Your task to perform on an android device: change the clock style Image 0: 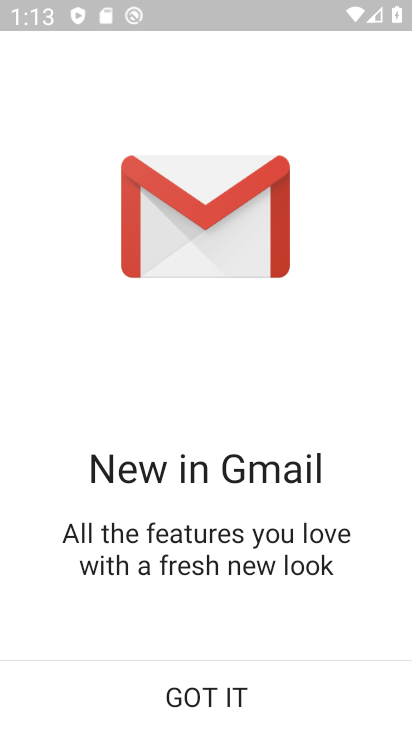
Step 0: press home button
Your task to perform on an android device: change the clock style Image 1: 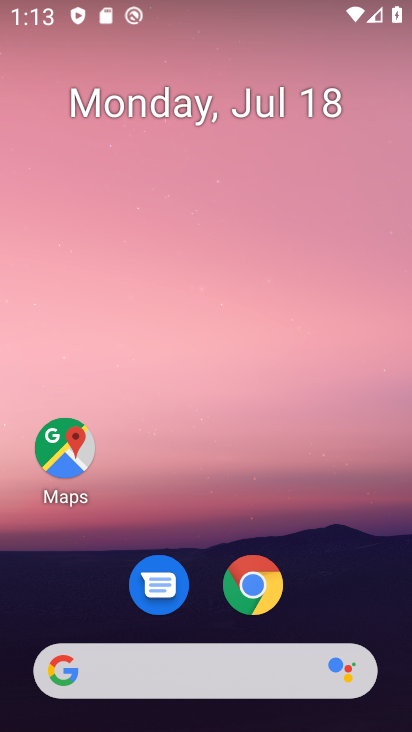
Step 1: drag from (206, 663) to (96, 404)
Your task to perform on an android device: change the clock style Image 2: 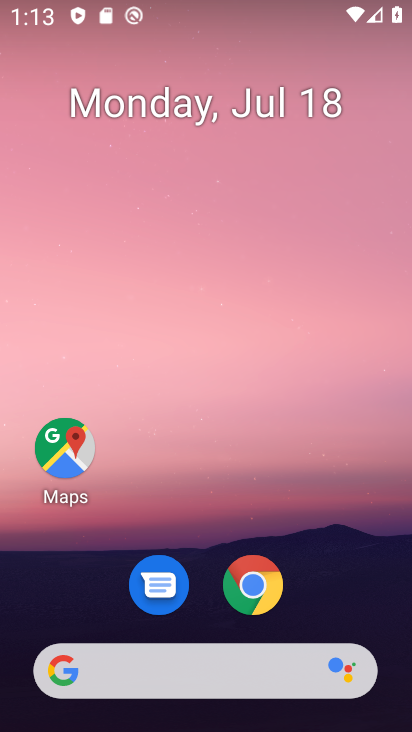
Step 2: drag from (166, 707) to (157, 626)
Your task to perform on an android device: change the clock style Image 3: 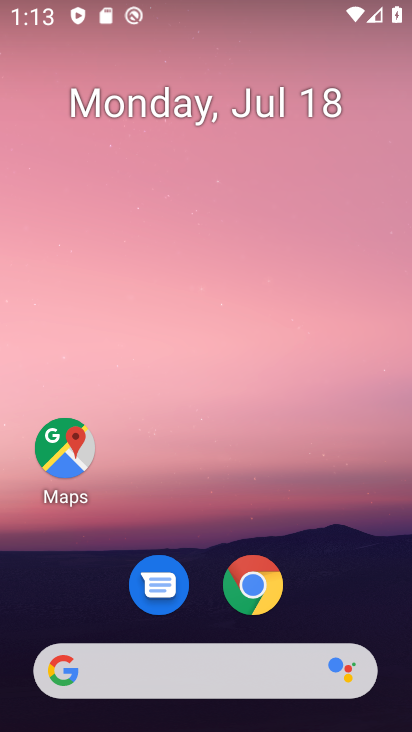
Step 3: drag from (233, 680) to (178, 32)
Your task to perform on an android device: change the clock style Image 4: 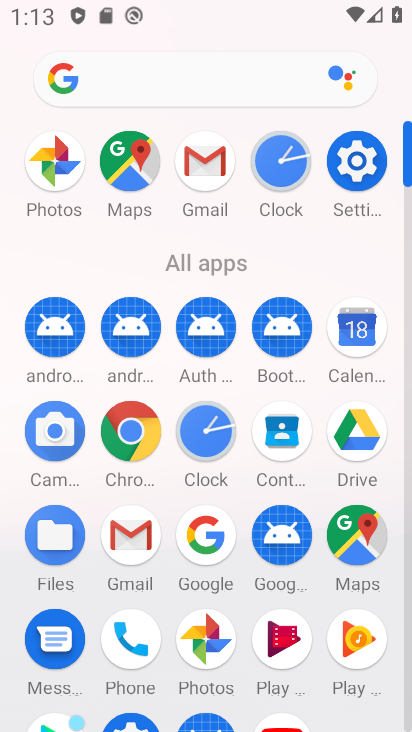
Step 4: click (205, 427)
Your task to perform on an android device: change the clock style Image 5: 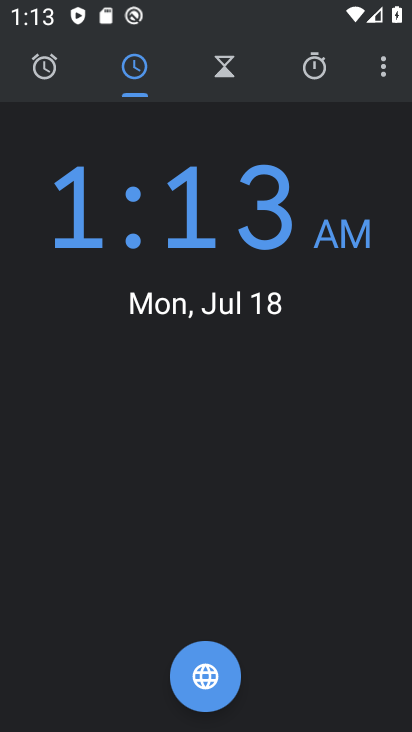
Step 5: click (382, 70)
Your task to perform on an android device: change the clock style Image 6: 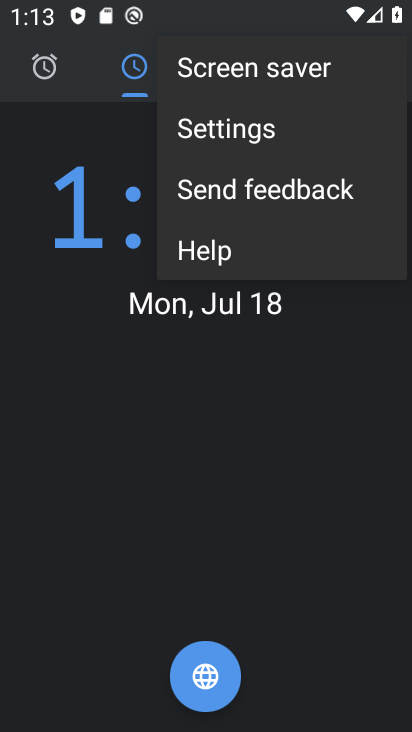
Step 6: click (249, 132)
Your task to perform on an android device: change the clock style Image 7: 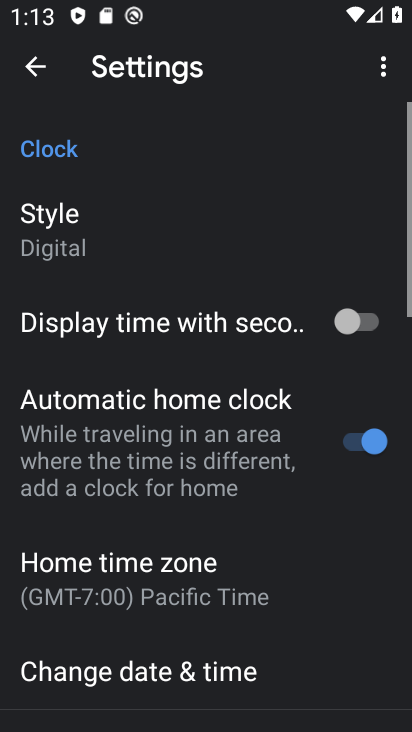
Step 7: click (69, 244)
Your task to perform on an android device: change the clock style Image 8: 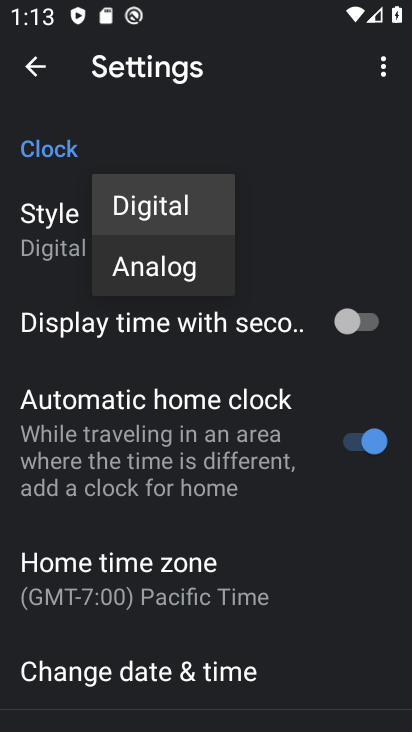
Step 8: click (162, 282)
Your task to perform on an android device: change the clock style Image 9: 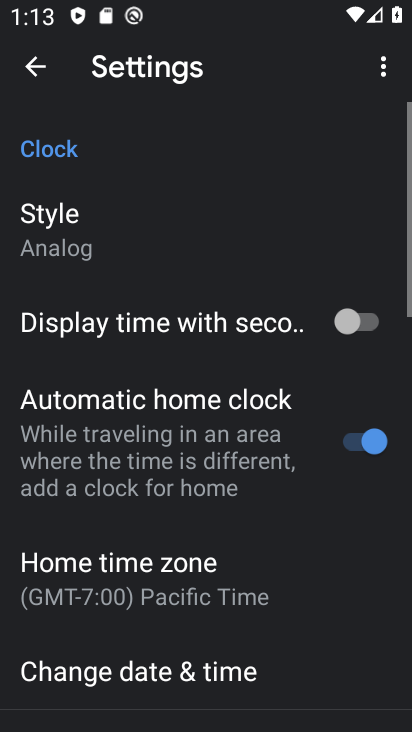
Step 9: task complete